Your task to perform on an android device: turn off notifications in google photos Image 0: 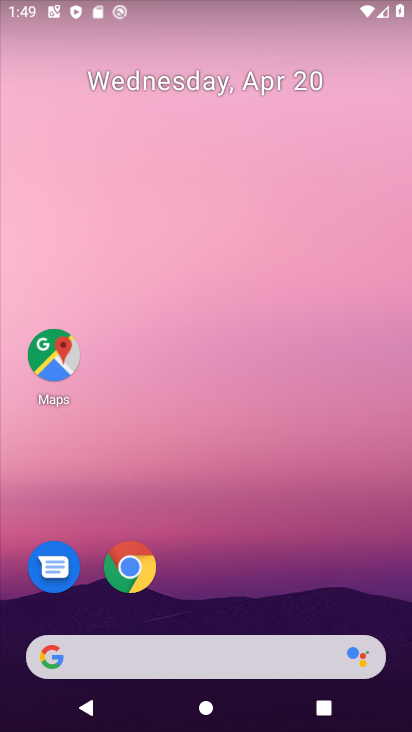
Step 0: drag from (214, 567) to (185, 180)
Your task to perform on an android device: turn off notifications in google photos Image 1: 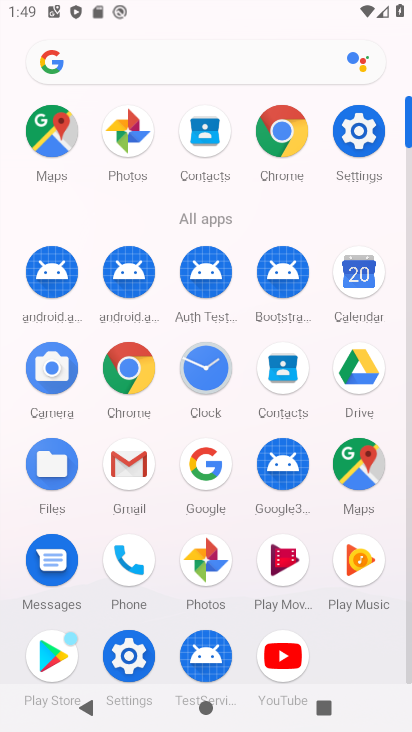
Step 1: click (120, 145)
Your task to perform on an android device: turn off notifications in google photos Image 2: 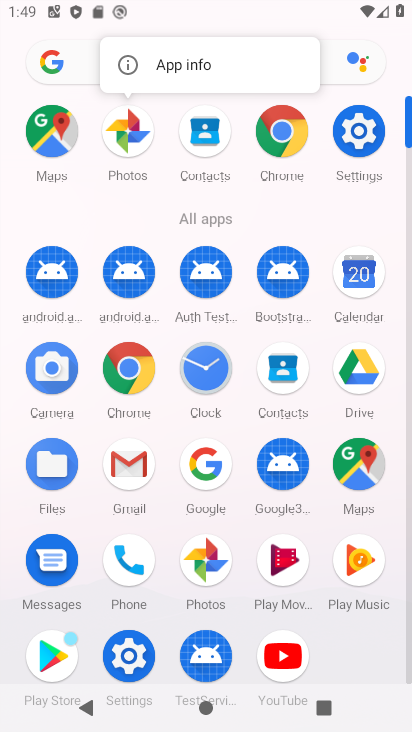
Step 2: click (115, 137)
Your task to perform on an android device: turn off notifications in google photos Image 3: 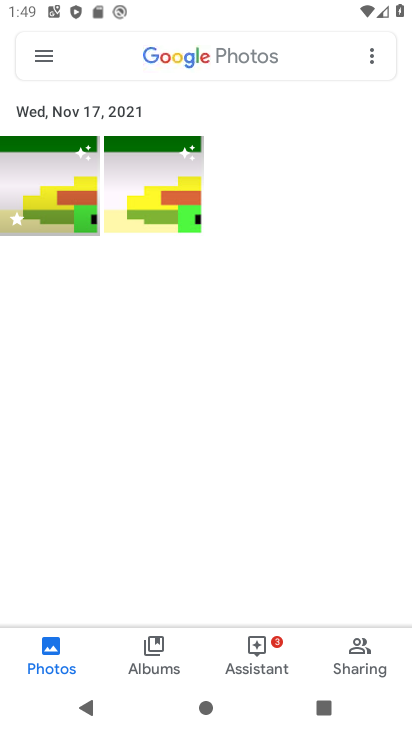
Step 3: click (375, 57)
Your task to perform on an android device: turn off notifications in google photos Image 4: 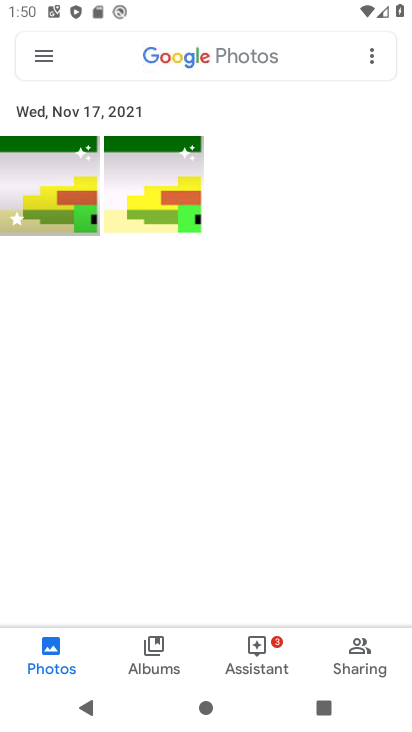
Step 4: click (46, 46)
Your task to perform on an android device: turn off notifications in google photos Image 5: 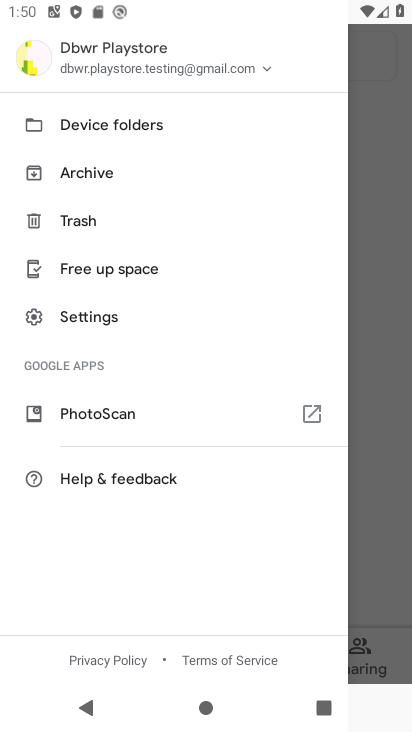
Step 5: click (94, 320)
Your task to perform on an android device: turn off notifications in google photos Image 6: 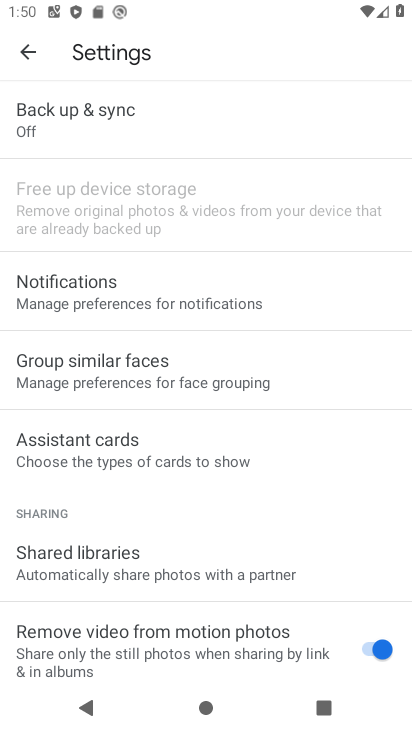
Step 6: click (98, 305)
Your task to perform on an android device: turn off notifications in google photos Image 7: 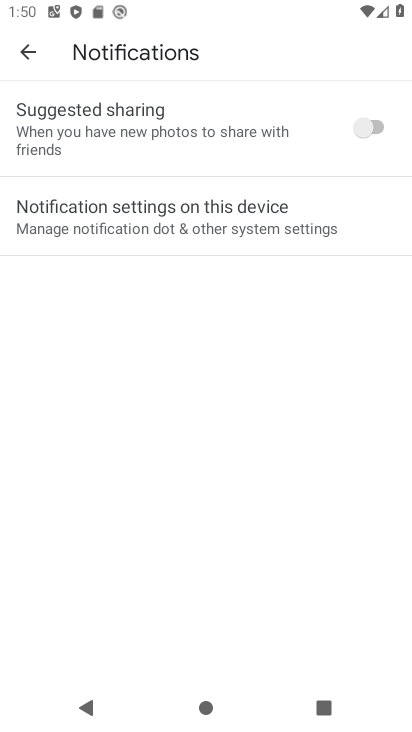
Step 7: click (329, 213)
Your task to perform on an android device: turn off notifications in google photos Image 8: 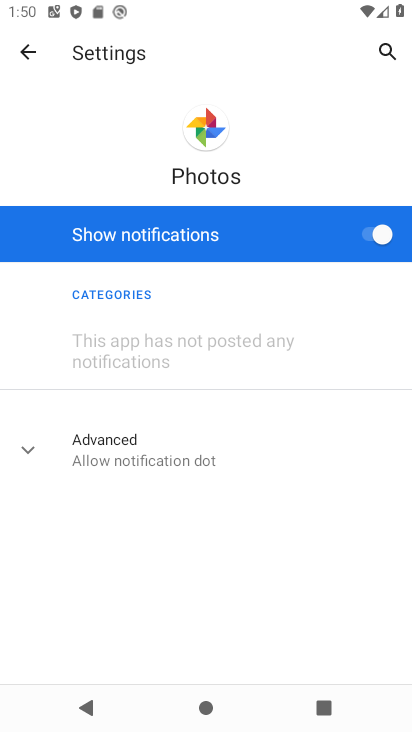
Step 8: click (396, 246)
Your task to perform on an android device: turn off notifications in google photos Image 9: 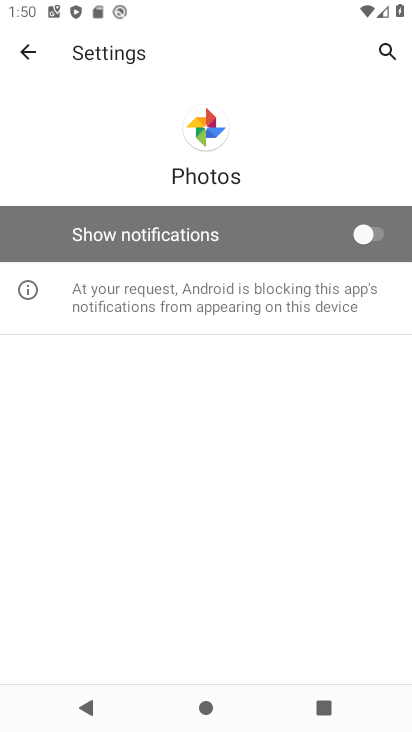
Step 9: task complete